Your task to perform on an android device: toggle priority inbox in the gmail app Image 0: 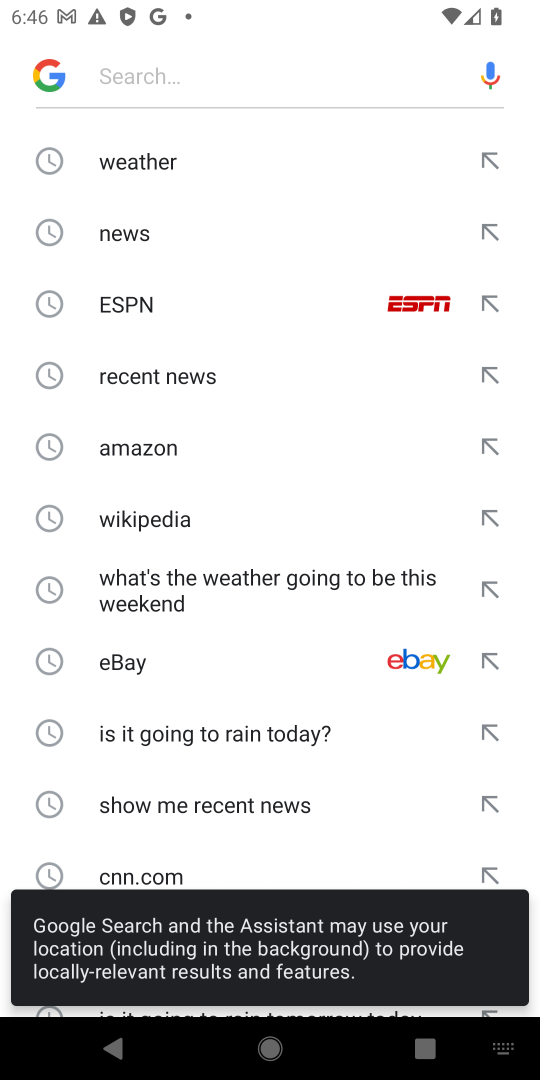
Step 0: press back button
Your task to perform on an android device: toggle priority inbox in the gmail app Image 1: 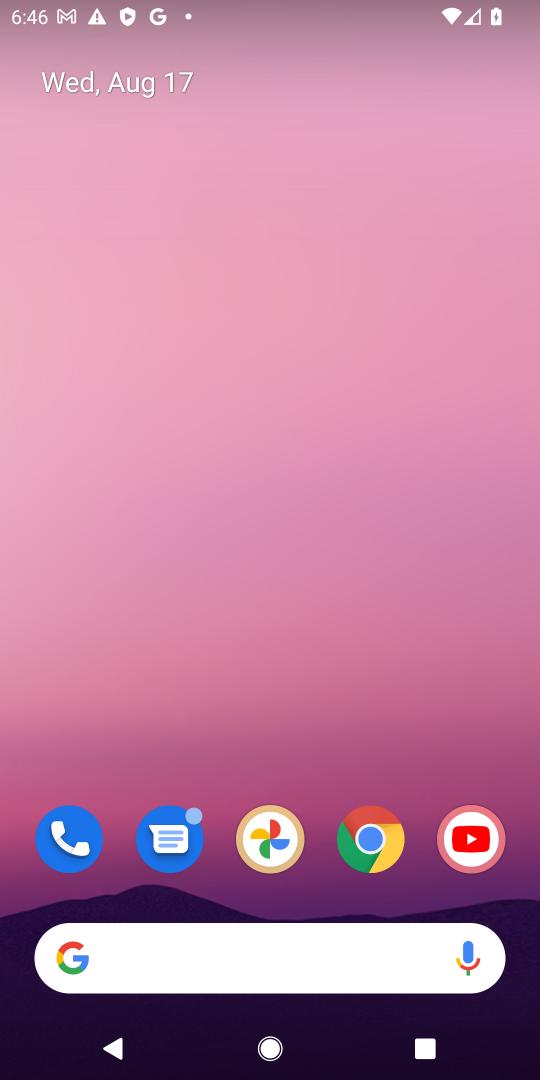
Step 1: press back button
Your task to perform on an android device: toggle priority inbox in the gmail app Image 2: 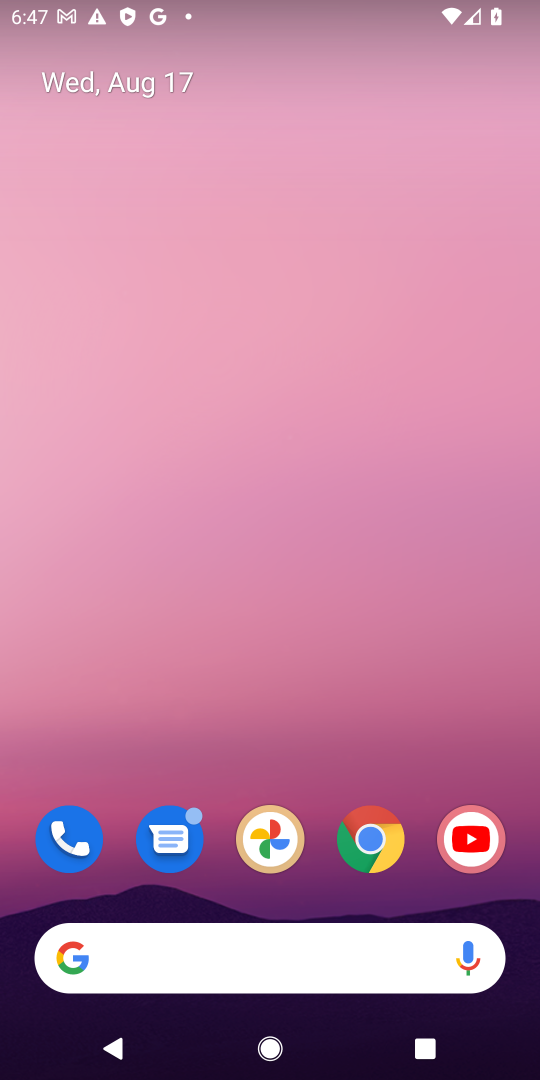
Step 2: drag from (310, 893) to (193, 6)
Your task to perform on an android device: toggle priority inbox in the gmail app Image 3: 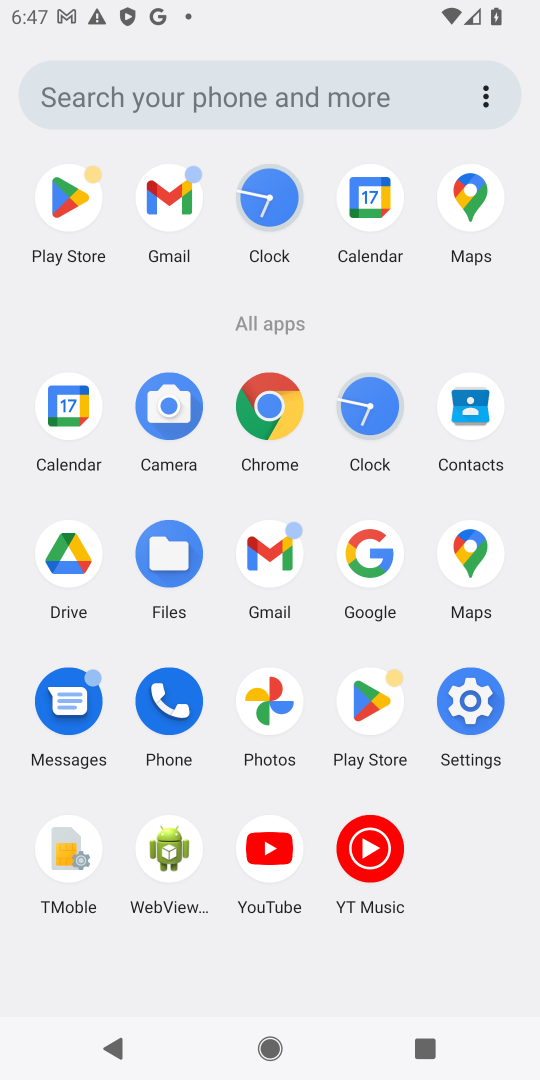
Step 3: click (273, 586)
Your task to perform on an android device: toggle priority inbox in the gmail app Image 4: 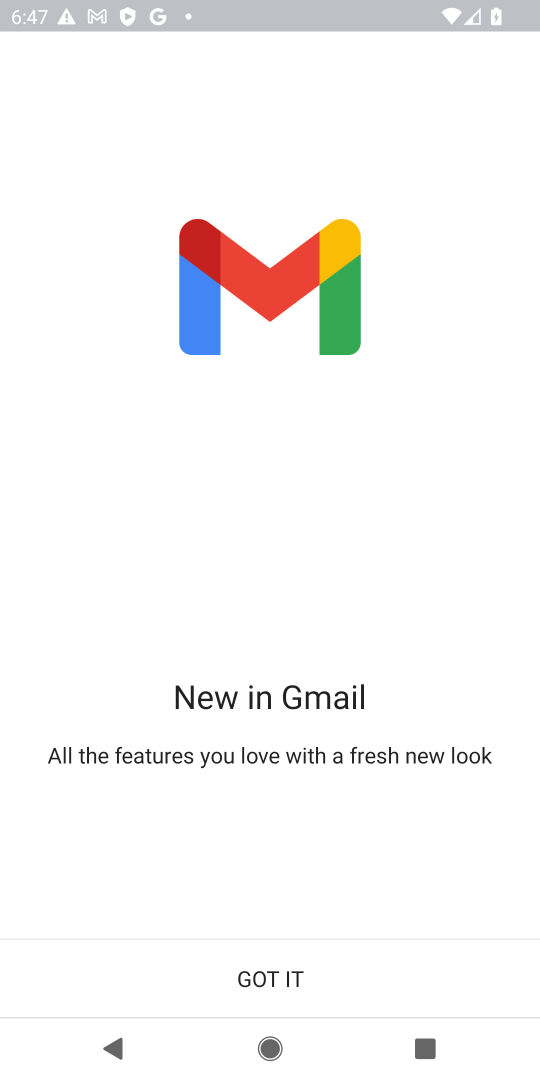
Step 4: click (316, 1017)
Your task to perform on an android device: toggle priority inbox in the gmail app Image 5: 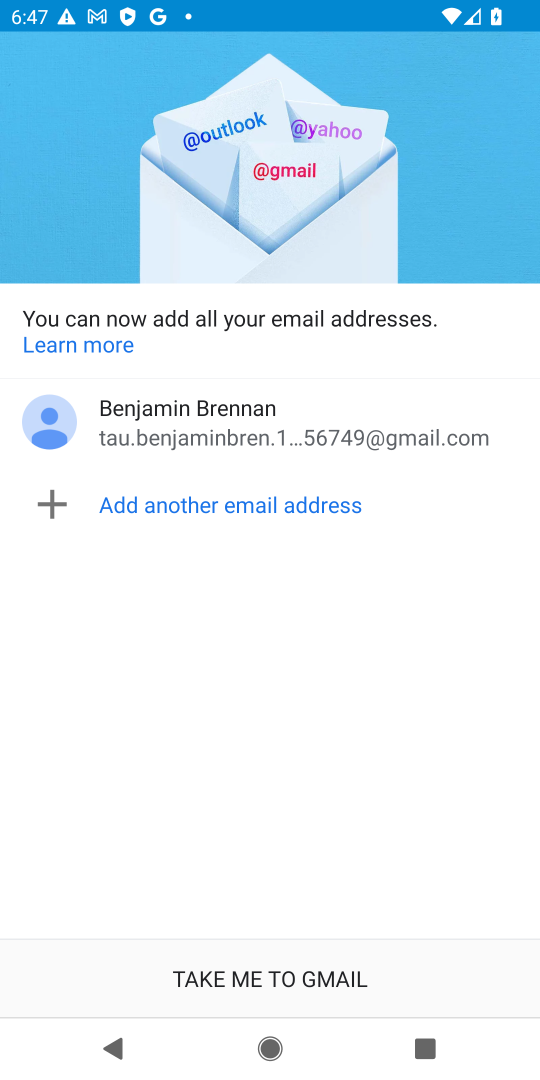
Step 5: click (311, 991)
Your task to perform on an android device: toggle priority inbox in the gmail app Image 6: 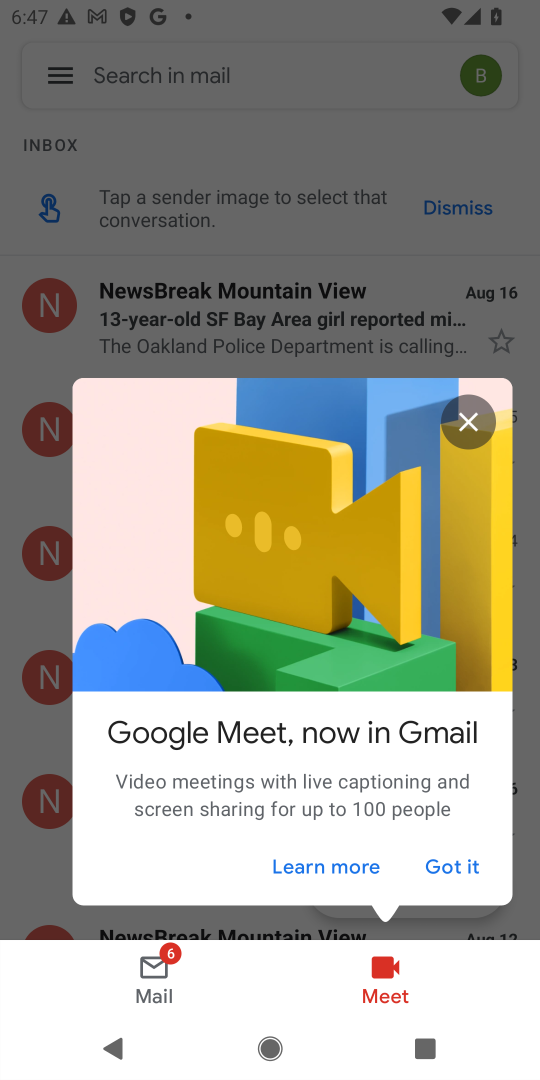
Step 6: click (463, 857)
Your task to perform on an android device: toggle priority inbox in the gmail app Image 7: 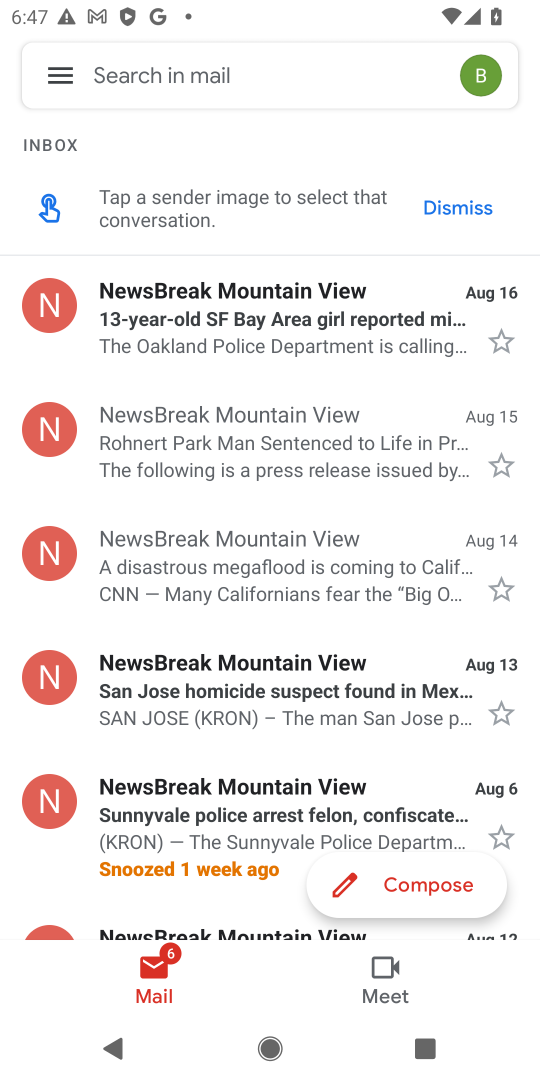
Step 7: click (56, 91)
Your task to perform on an android device: toggle priority inbox in the gmail app Image 8: 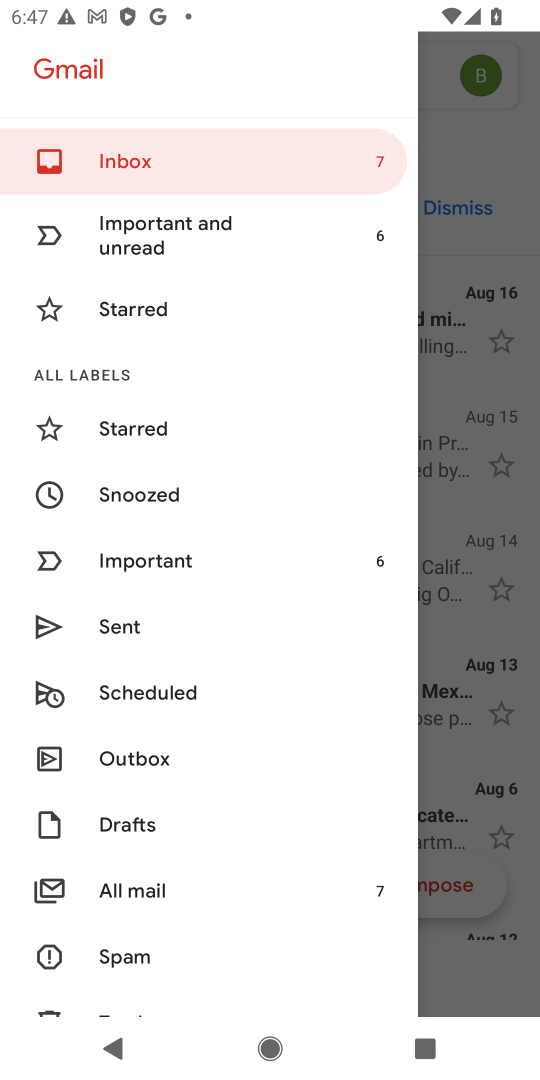
Step 8: drag from (163, 801) to (128, 269)
Your task to perform on an android device: toggle priority inbox in the gmail app Image 9: 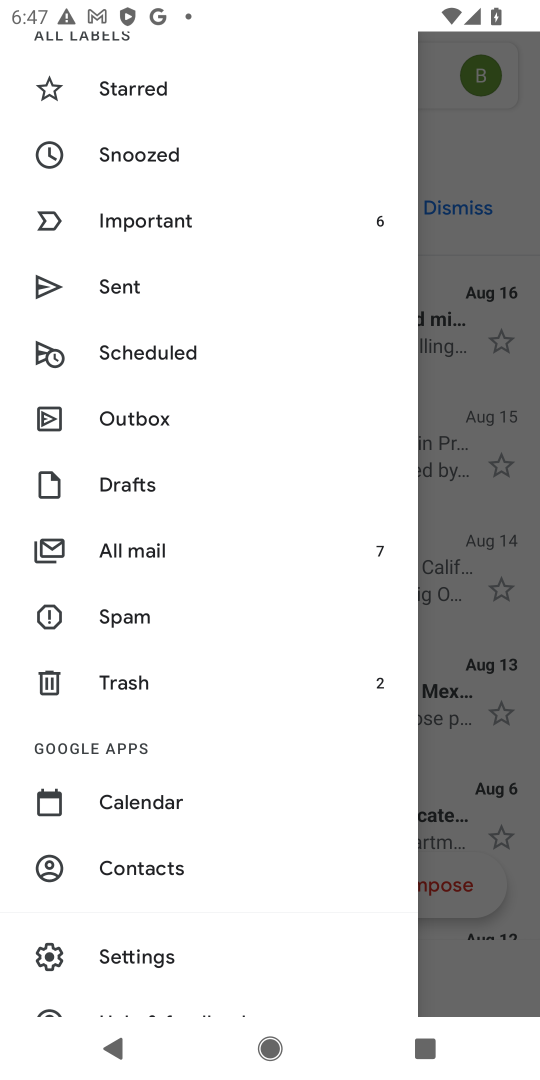
Step 9: click (134, 946)
Your task to perform on an android device: toggle priority inbox in the gmail app Image 10: 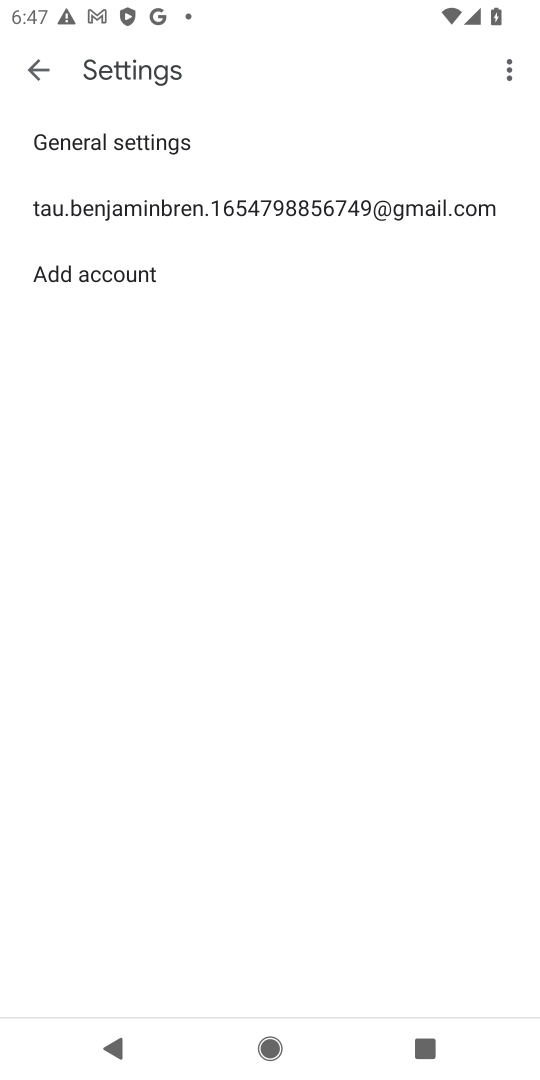
Step 10: click (154, 225)
Your task to perform on an android device: toggle priority inbox in the gmail app Image 11: 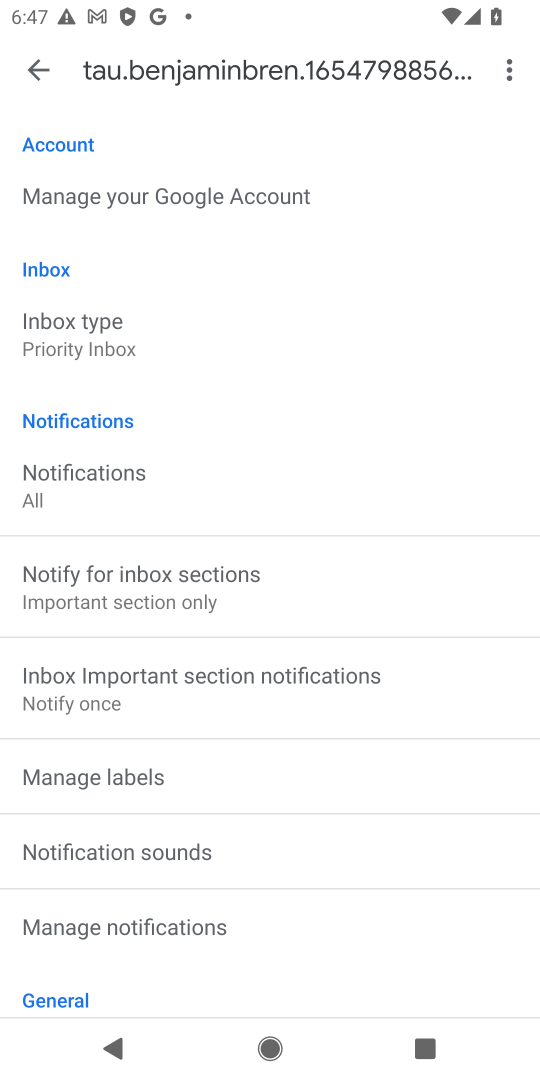
Step 11: click (69, 317)
Your task to perform on an android device: toggle priority inbox in the gmail app Image 12: 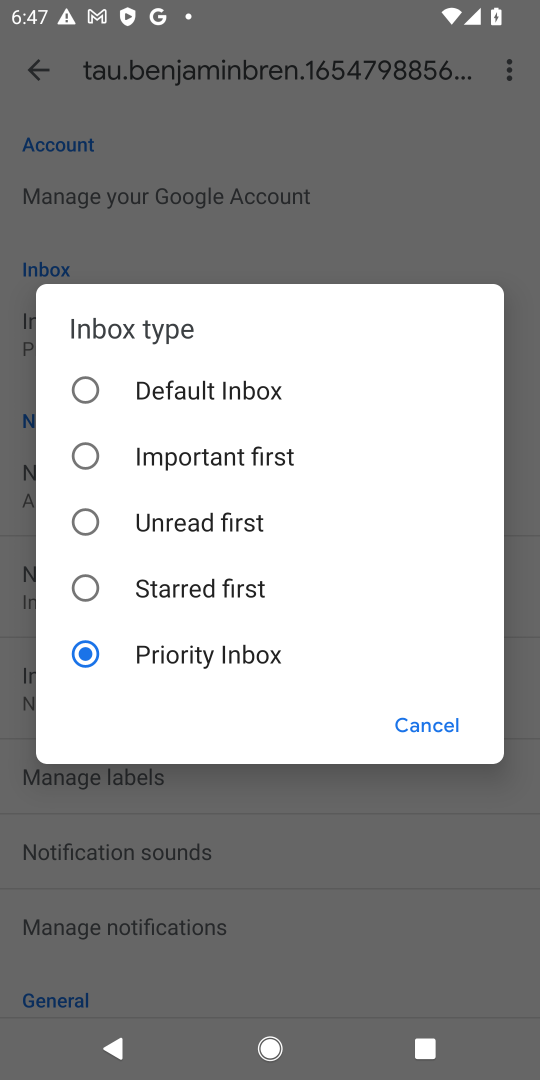
Step 12: click (107, 371)
Your task to perform on an android device: toggle priority inbox in the gmail app Image 13: 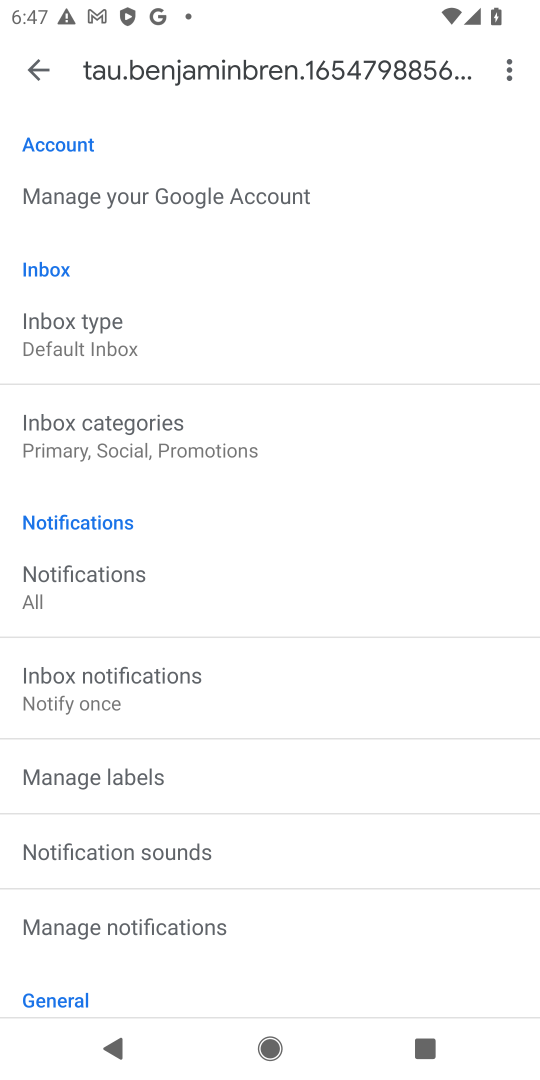
Step 13: task complete